Your task to perform on an android device: Go to Wikipedia Image 0: 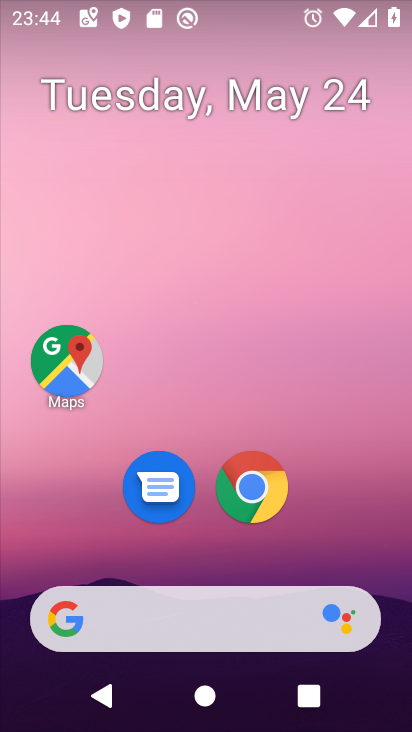
Step 0: click (259, 475)
Your task to perform on an android device: Go to Wikipedia Image 1: 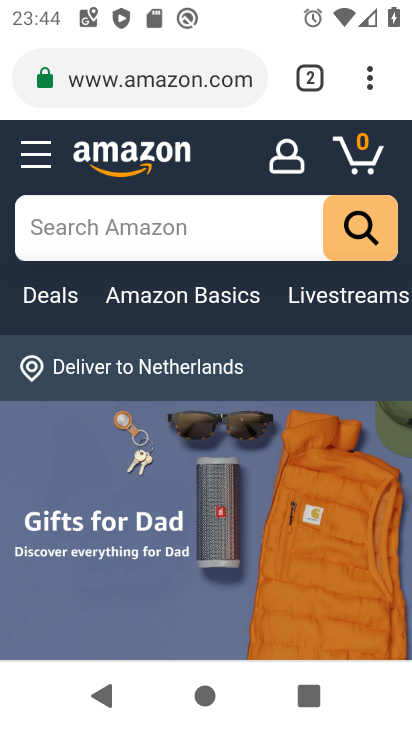
Step 1: click (300, 81)
Your task to perform on an android device: Go to Wikipedia Image 2: 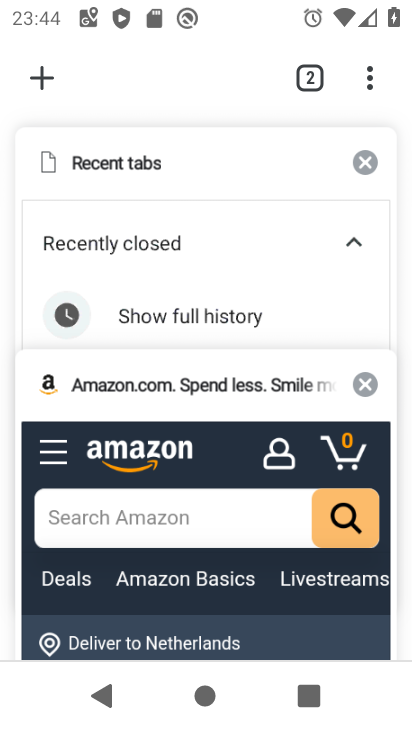
Step 2: click (40, 80)
Your task to perform on an android device: Go to Wikipedia Image 3: 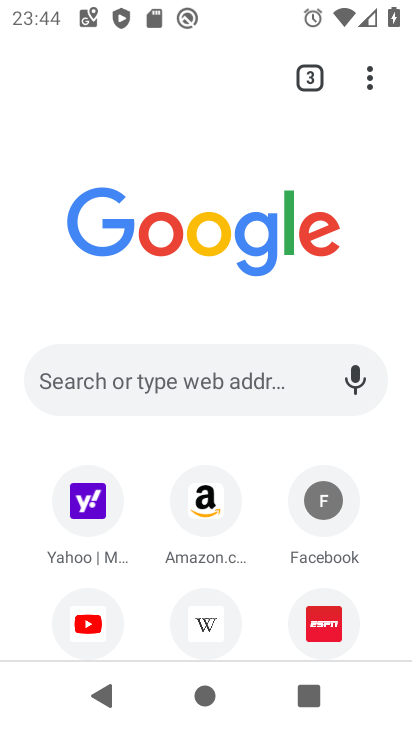
Step 3: click (203, 617)
Your task to perform on an android device: Go to Wikipedia Image 4: 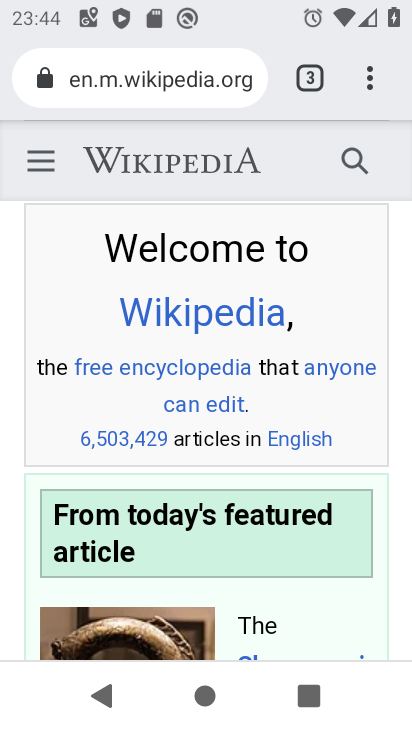
Step 4: task complete